Your task to perform on an android device: delete location history Image 0: 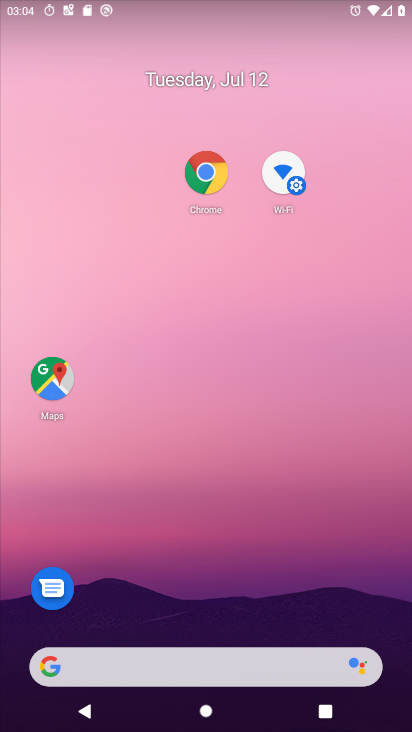
Step 0: click (194, 152)
Your task to perform on an android device: delete location history Image 1: 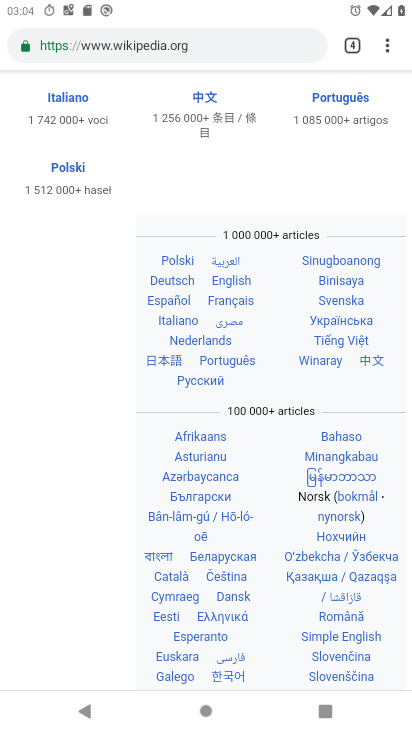
Step 1: press home button
Your task to perform on an android device: delete location history Image 2: 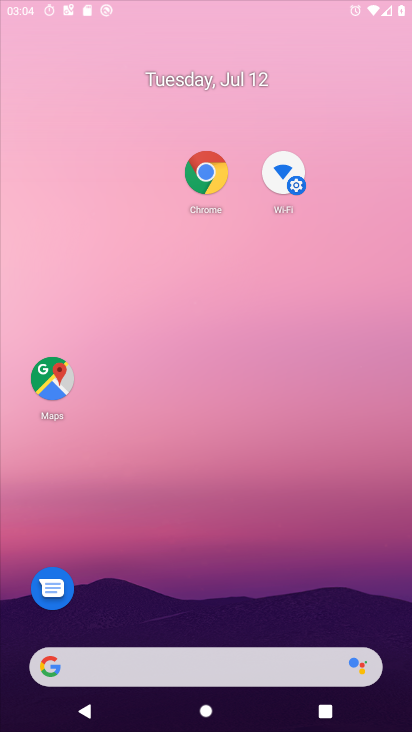
Step 2: drag from (215, 644) to (241, 193)
Your task to perform on an android device: delete location history Image 3: 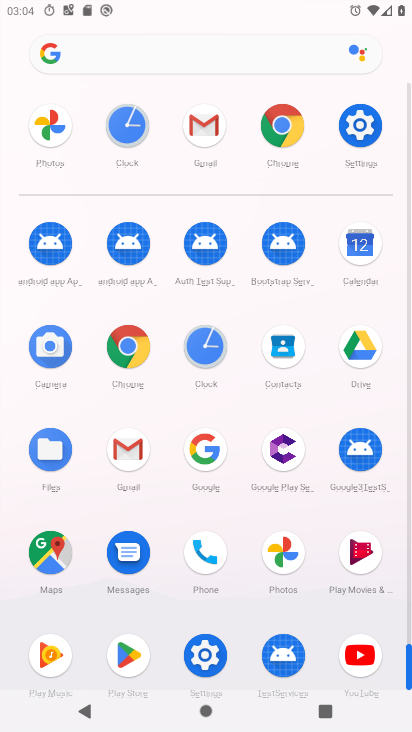
Step 3: click (203, 662)
Your task to perform on an android device: delete location history Image 4: 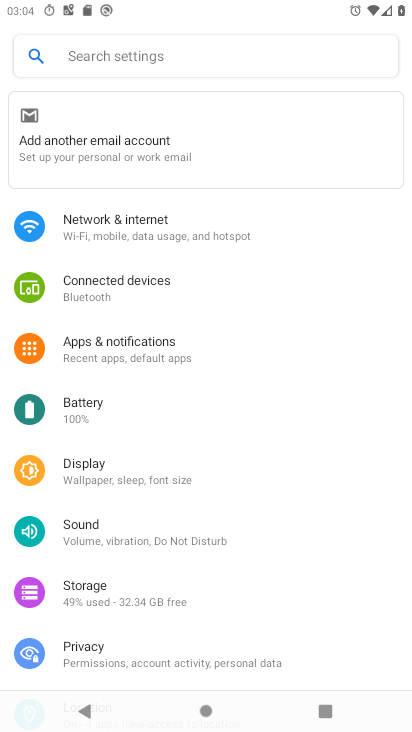
Step 4: drag from (201, 576) to (219, 184)
Your task to perform on an android device: delete location history Image 5: 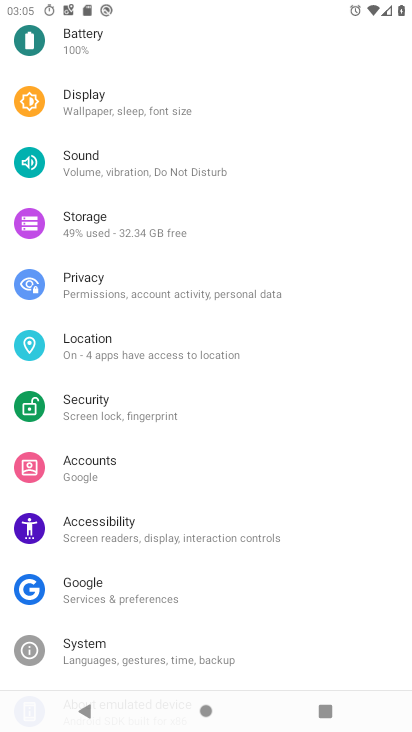
Step 5: click (121, 345)
Your task to perform on an android device: delete location history Image 6: 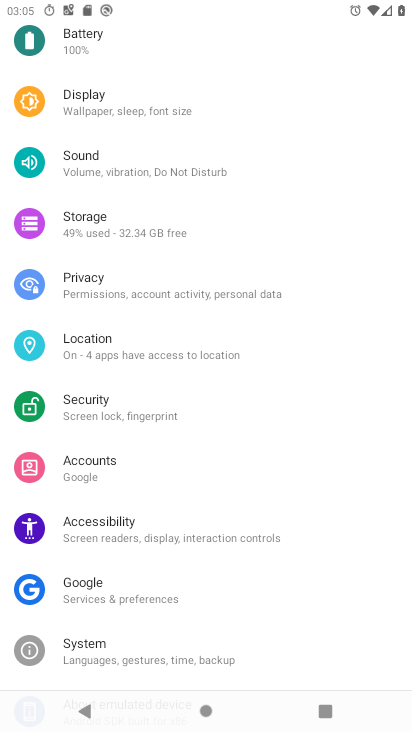
Step 6: click (121, 345)
Your task to perform on an android device: delete location history Image 7: 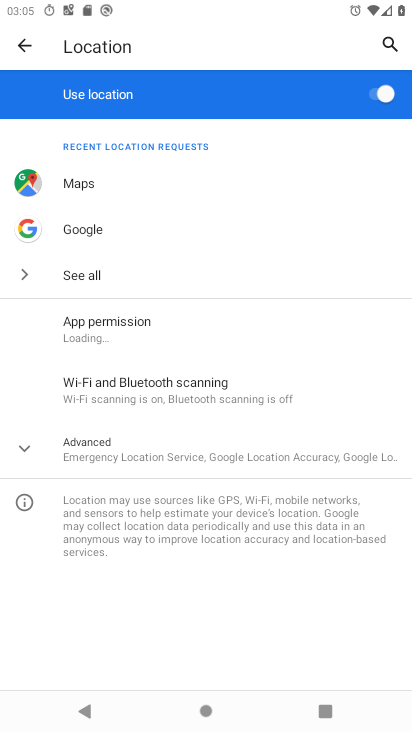
Step 7: click (127, 449)
Your task to perform on an android device: delete location history Image 8: 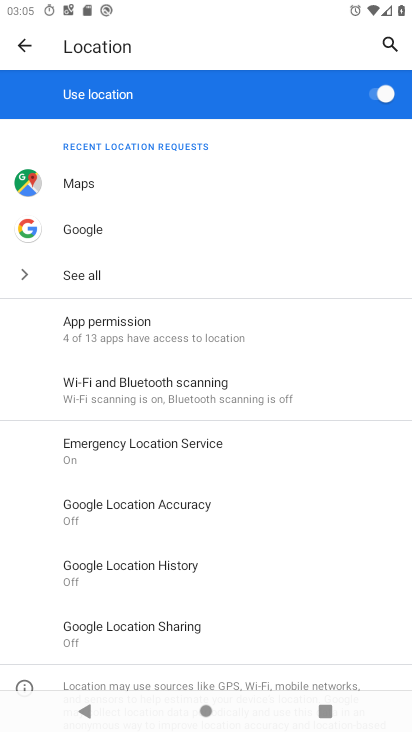
Step 8: click (169, 562)
Your task to perform on an android device: delete location history Image 9: 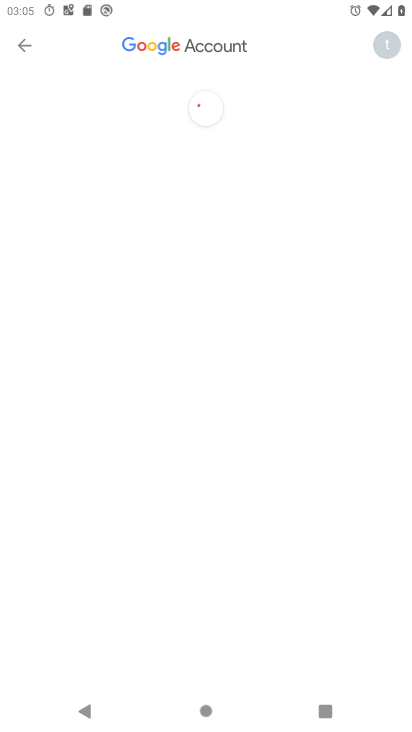
Step 9: drag from (224, 495) to (251, 286)
Your task to perform on an android device: delete location history Image 10: 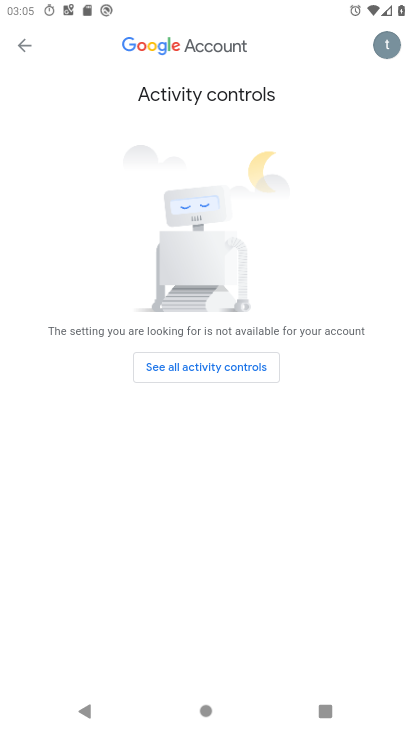
Step 10: click (190, 373)
Your task to perform on an android device: delete location history Image 11: 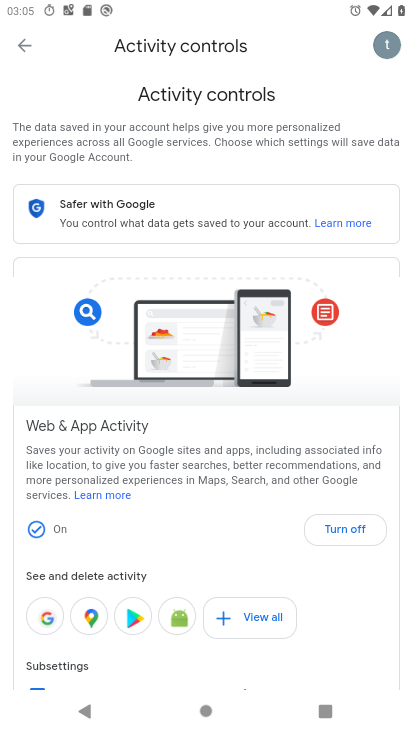
Step 11: drag from (189, 518) to (306, 186)
Your task to perform on an android device: delete location history Image 12: 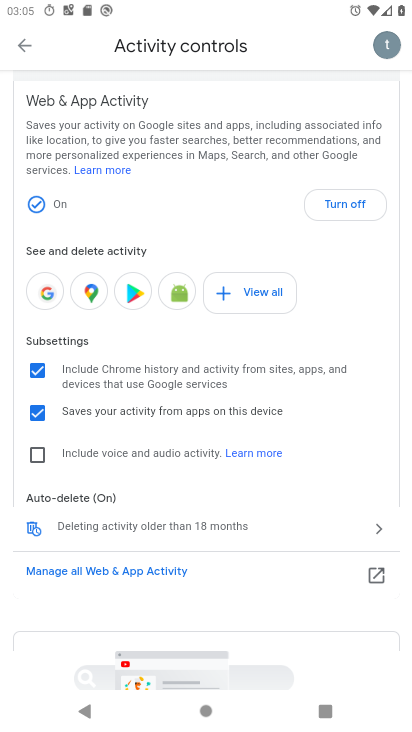
Step 12: click (39, 523)
Your task to perform on an android device: delete location history Image 13: 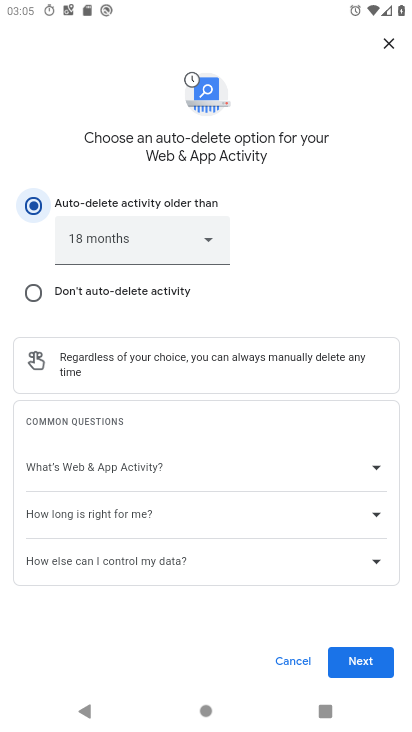
Step 13: drag from (169, 496) to (236, 188)
Your task to perform on an android device: delete location history Image 14: 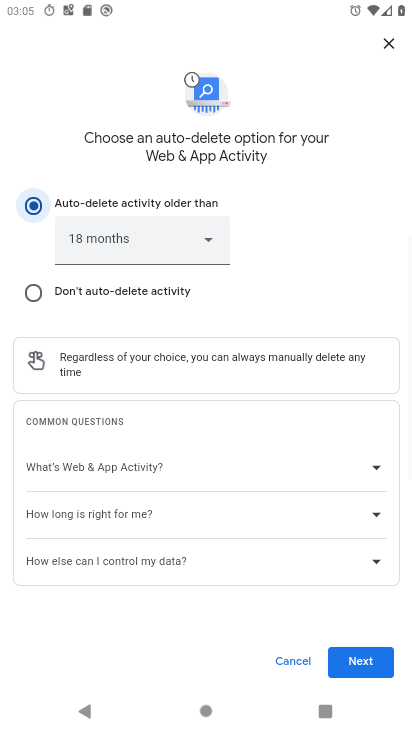
Step 14: click (351, 661)
Your task to perform on an android device: delete location history Image 15: 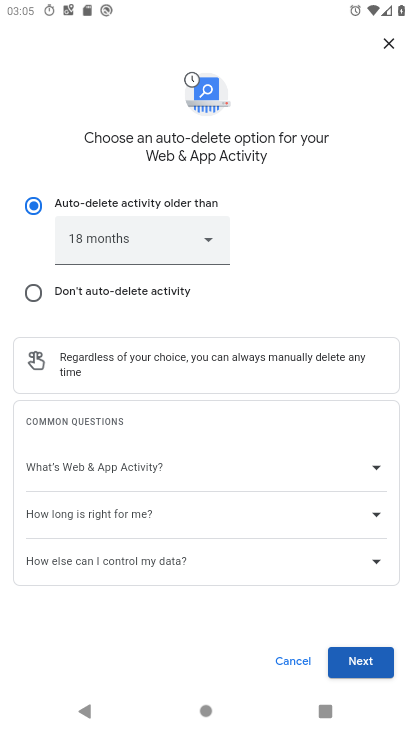
Step 15: click (353, 661)
Your task to perform on an android device: delete location history Image 16: 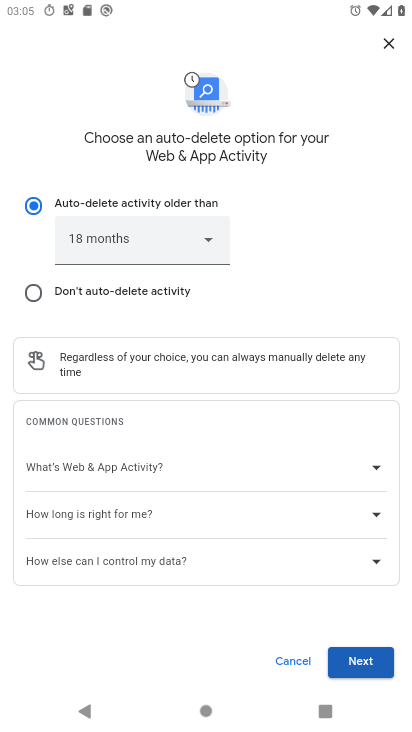
Step 16: click (354, 662)
Your task to perform on an android device: delete location history Image 17: 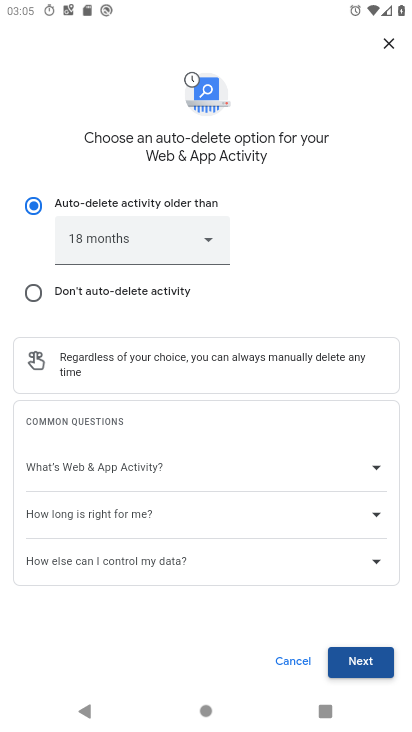
Step 17: click (383, 656)
Your task to perform on an android device: delete location history Image 18: 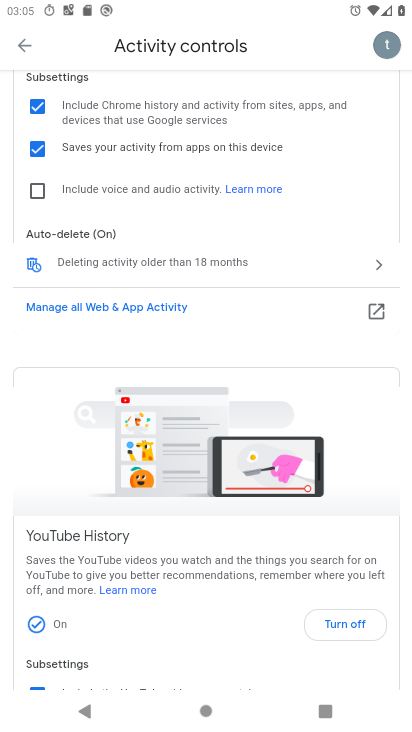
Step 18: task complete